Your task to perform on an android device: open app "Adobe Express: Graphic Design" (install if not already installed) Image 0: 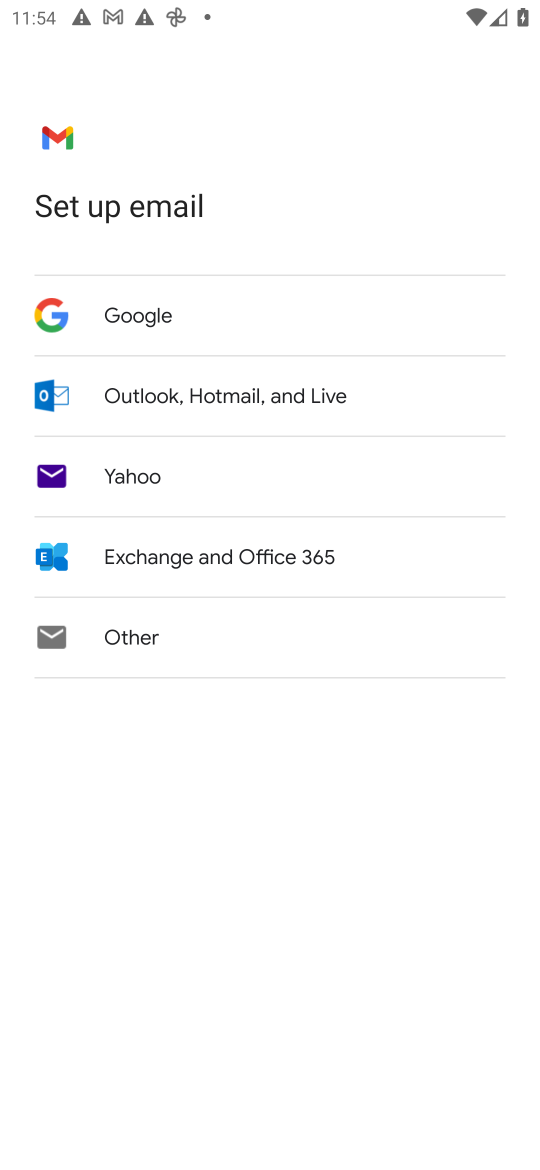
Step 0: press home button
Your task to perform on an android device: open app "Adobe Express: Graphic Design" (install if not already installed) Image 1: 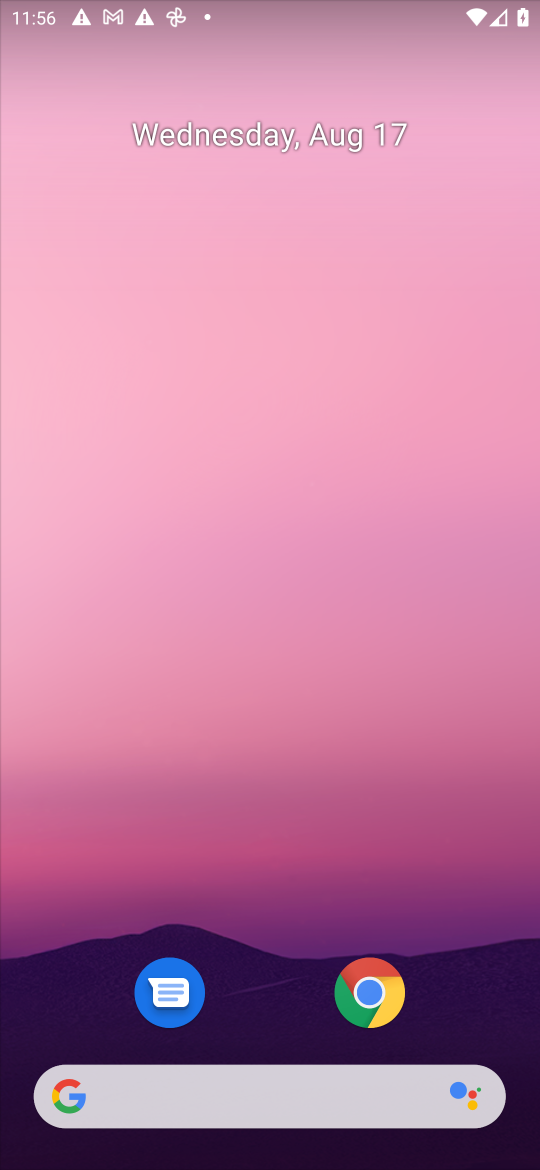
Step 1: drag from (487, 1006) to (248, 26)
Your task to perform on an android device: open app "Adobe Express: Graphic Design" (install if not already installed) Image 2: 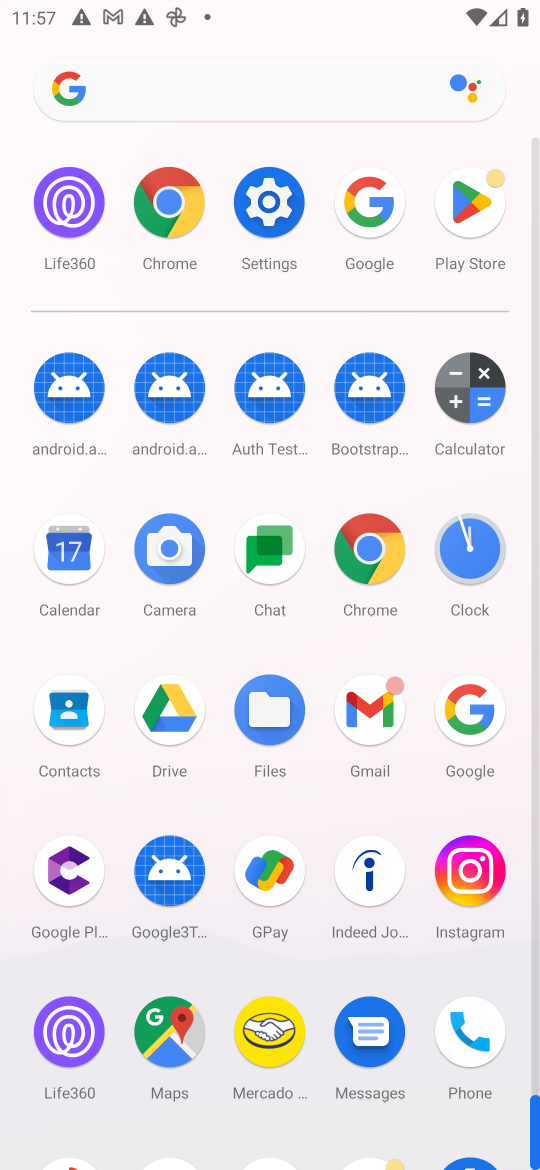
Step 2: click (483, 221)
Your task to perform on an android device: open app "Adobe Express: Graphic Design" (install if not already installed) Image 3: 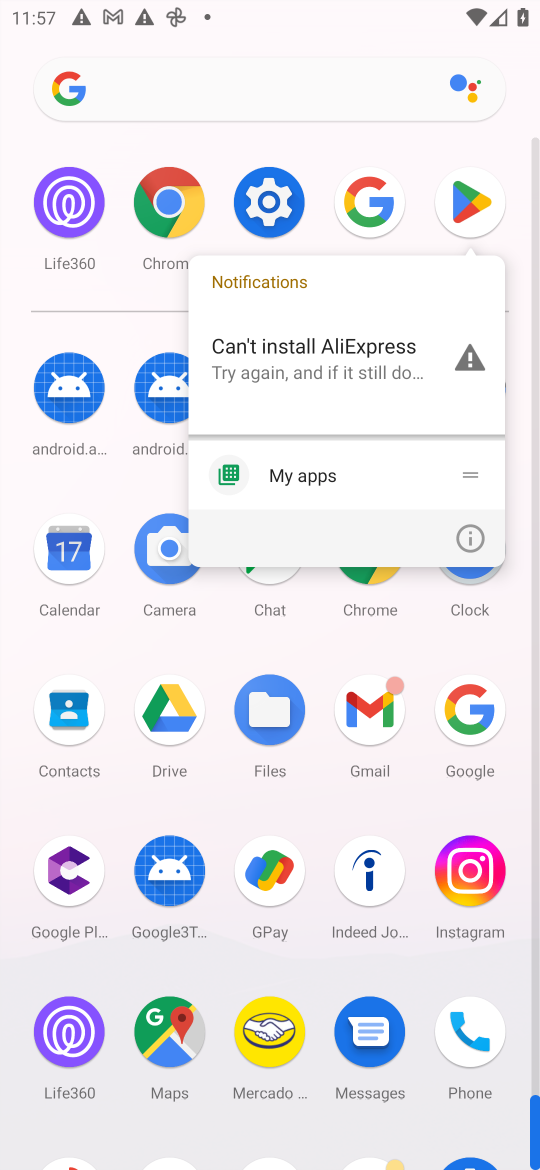
Step 3: click (471, 206)
Your task to perform on an android device: open app "Adobe Express: Graphic Design" (install if not already installed) Image 4: 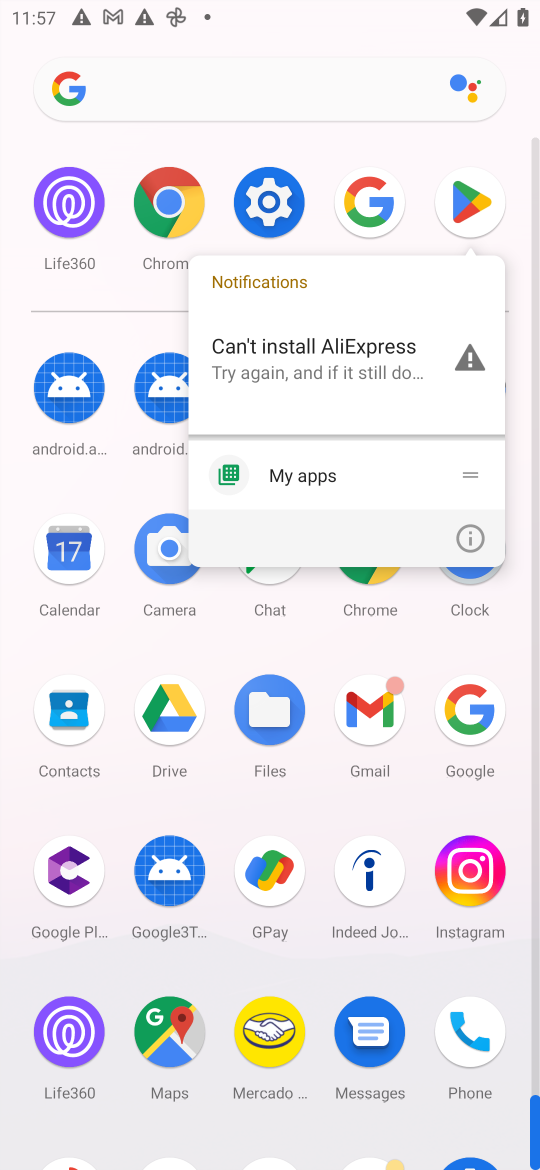
Step 4: click (471, 206)
Your task to perform on an android device: open app "Adobe Express: Graphic Design" (install if not already installed) Image 5: 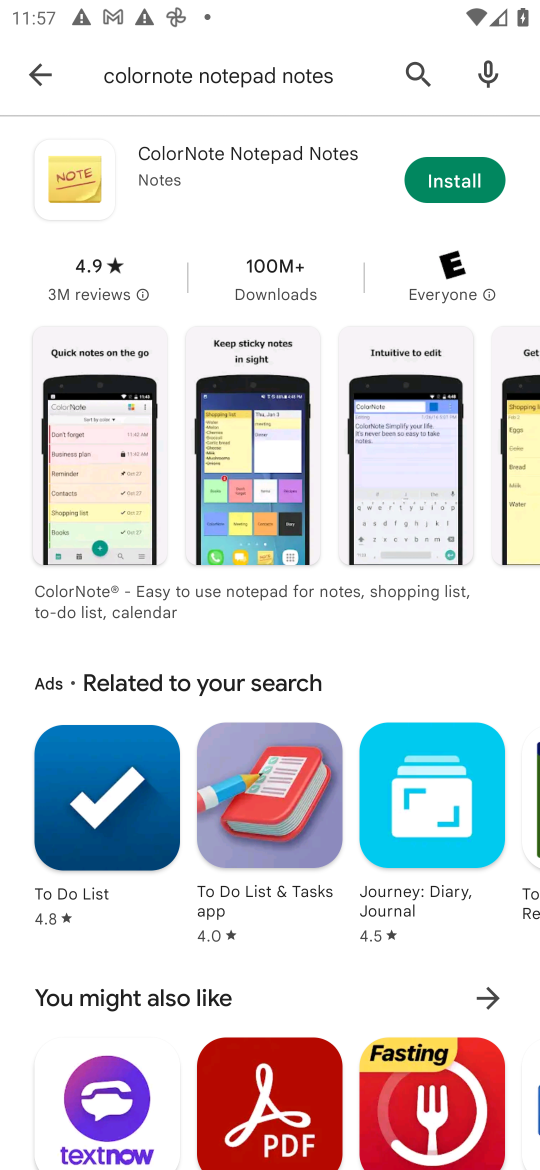
Step 5: press back button
Your task to perform on an android device: open app "Adobe Express: Graphic Design" (install if not already installed) Image 6: 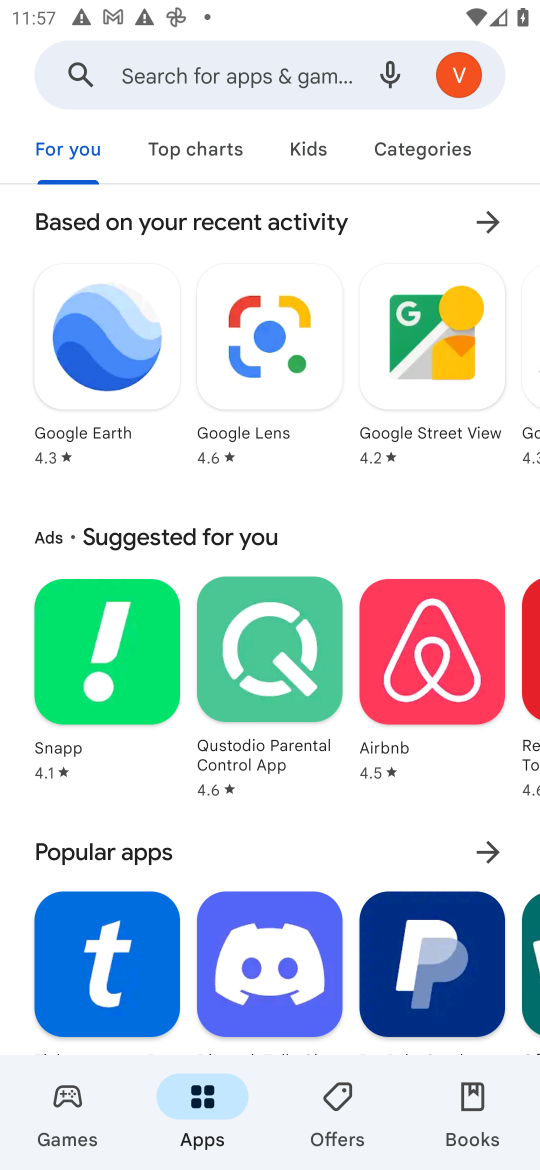
Step 6: click (171, 73)
Your task to perform on an android device: open app "Adobe Express: Graphic Design" (install if not already installed) Image 7: 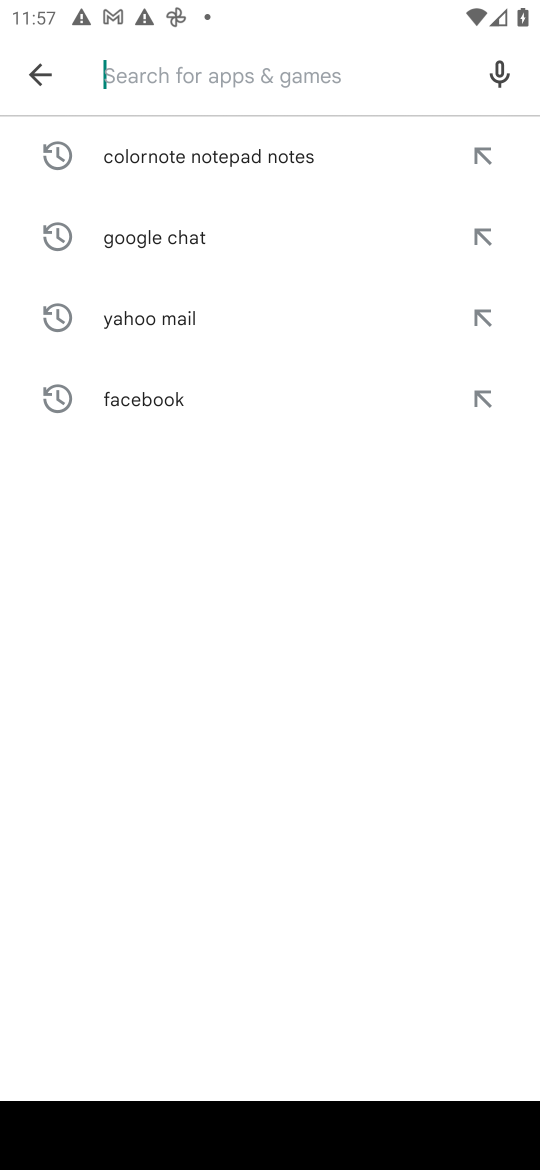
Step 7: type "Adobe Express: Graphic Design"
Your task to perform on an android device: open app "Adobe Express: Graphic Design" (install if not already installed) Image 8: 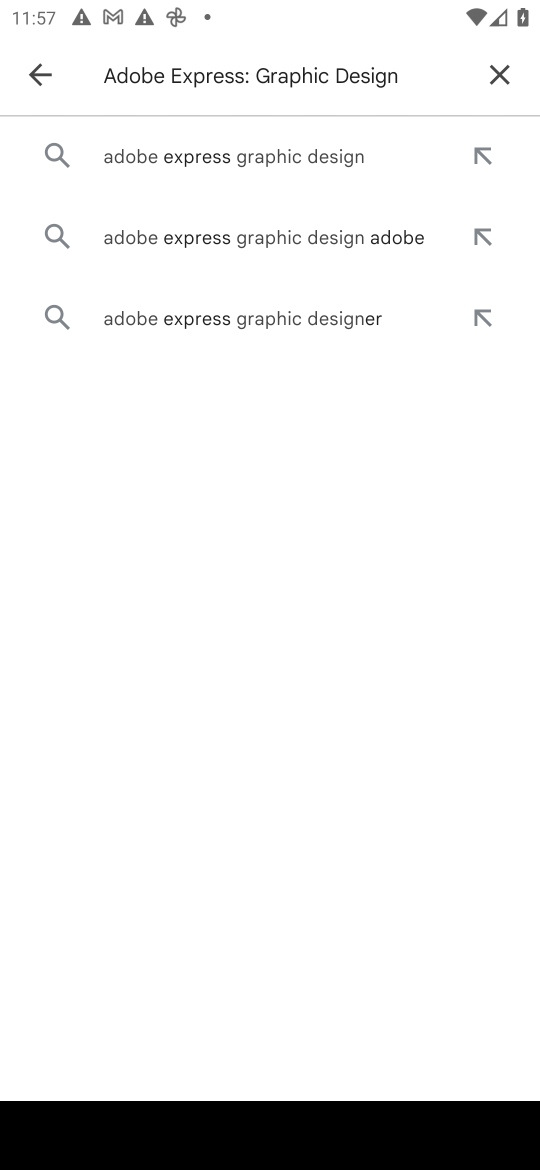
Step 8: click (270, 169)
Your task to perform on an android device: open app "Adobe Express: Graphic Design" (install if not already installed) Image 9: 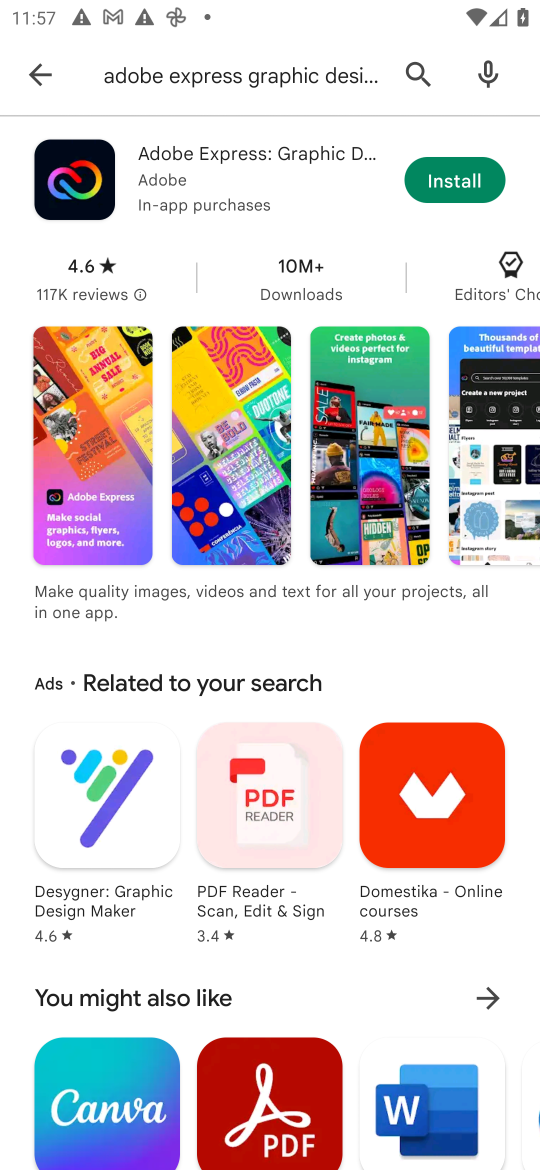
Step 9: task complete